Your task to perform on an android device: What is the recent news? Image 0: 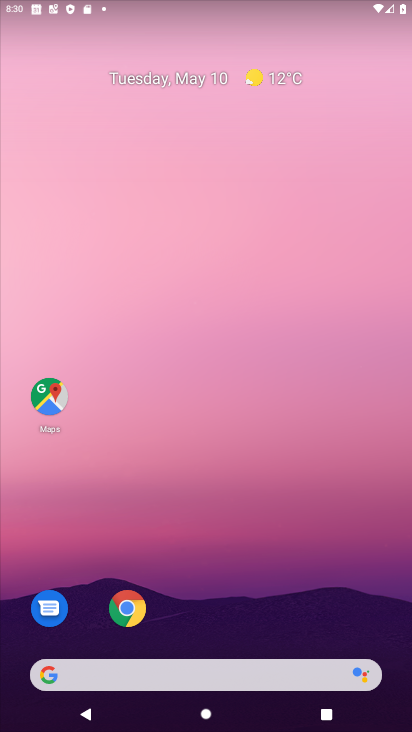
Step 0: drag from (14, 262) to (250, 201)
Your task to perform on an android device: What is the recent news? Image 1: 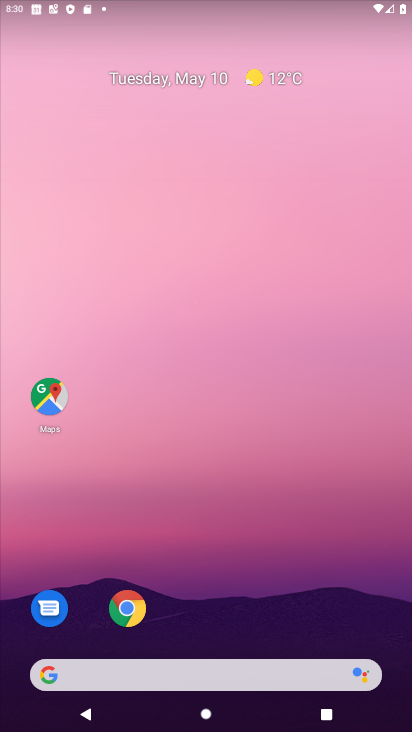
Step 1: task complete